Your task to perform on an android device: Open settings on Google Maps Image 0: 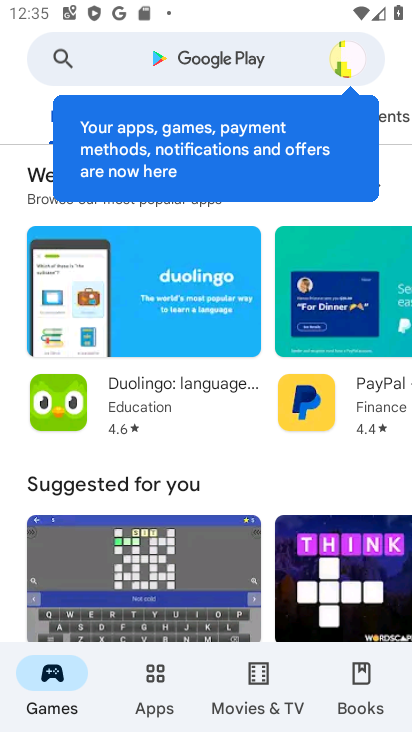
Step 0: drag from (306, 530) to (294, 151)
Your task to perform on an android device: Open settings on Google Maps Image 1: 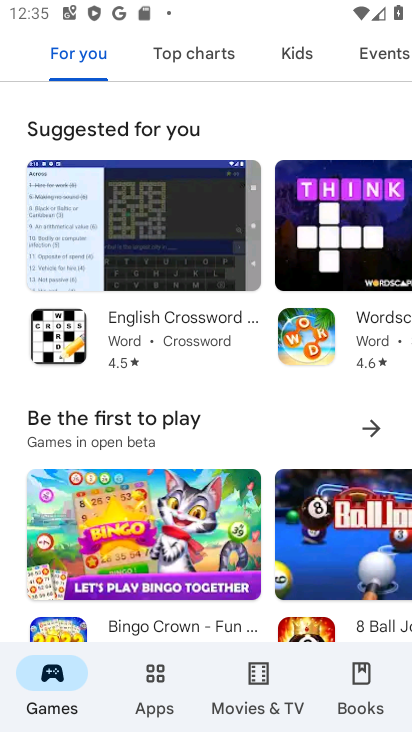
Step 1: press home button
Your task to perform on an android device: Open settings on Google Maps Image 2: 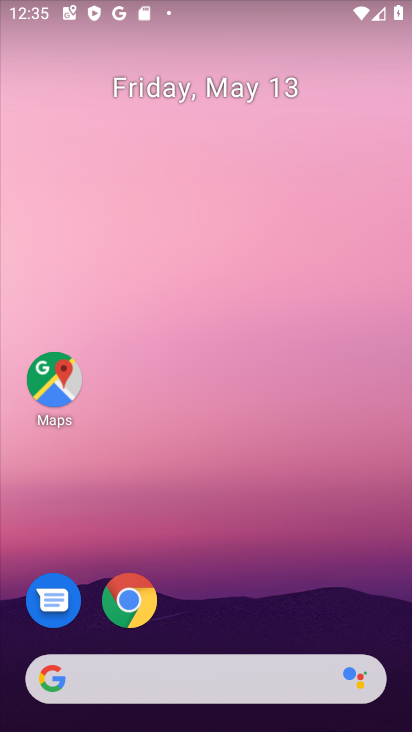
Step 2: drag from (252, 551) to (239, 8)
Your task to perform on an android device: Open settings on Google Maps Image 3: 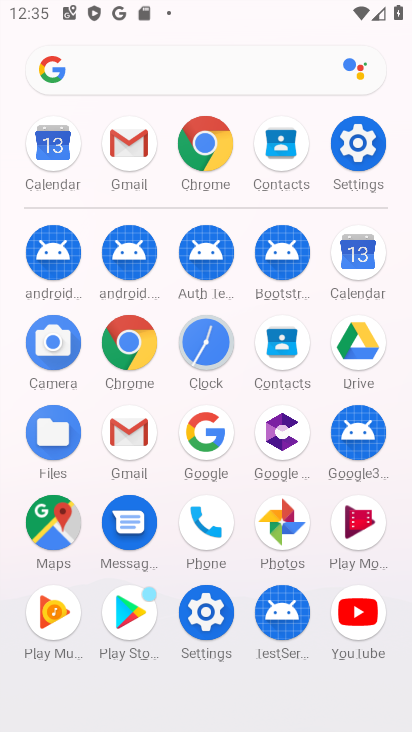
Step 3: click (39, 532)
Your task to perform on an android device: Open settings on Google Maps Image 4: 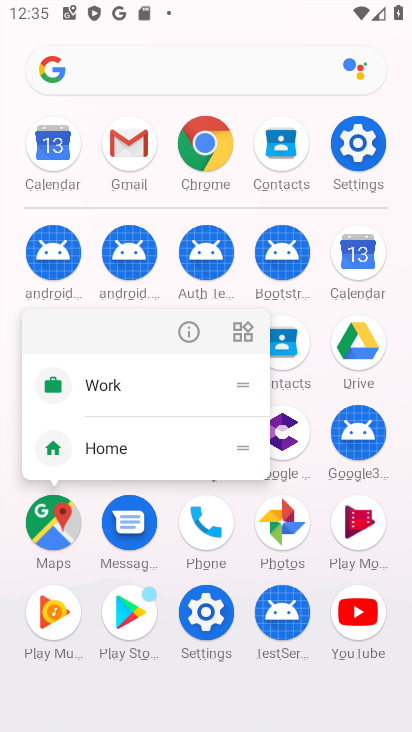
Step 4: click (195, 334)
Your task to perform on an android device: Open settings on Google Maps Image 5: 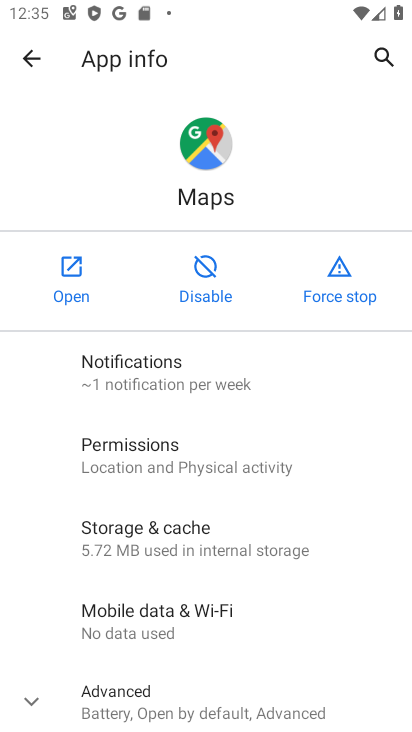
Step 5: click (48, 269)
Your task to perform on an android device: Open settings on Google Maps Image 6: 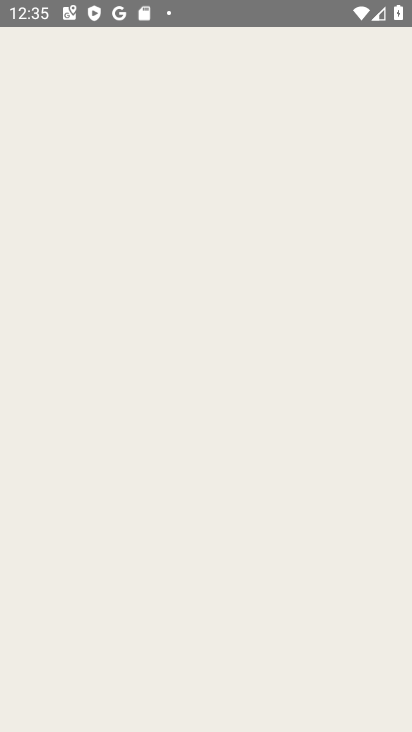
Step 6: drag from (225, 622) to (232, 346)
Your task to perform on an android device: Open settings on Google Maps Image 7: 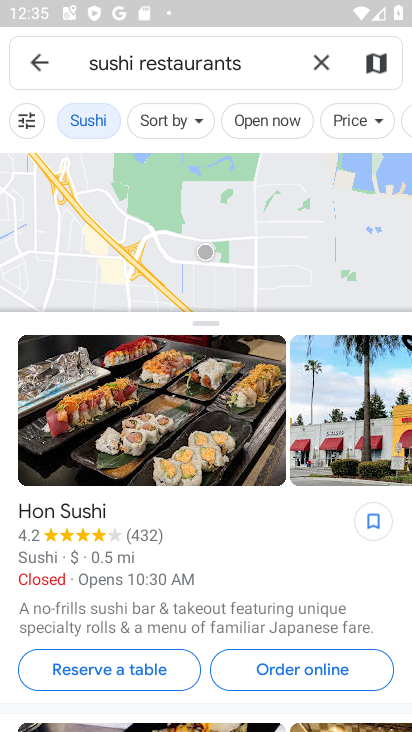
Step 7: click (39, 66)
Your task to perform on an android device: Open settings on Google Maps Image 8: 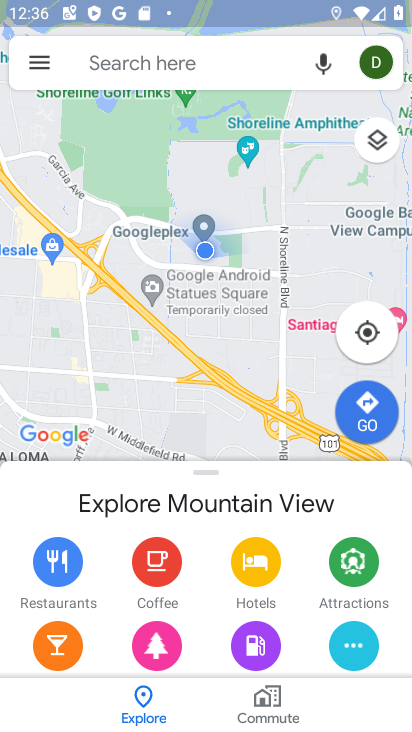
Step 8: click (18, 54)
Your task to perform on an android device: Open settings on Google Maps Image 9: 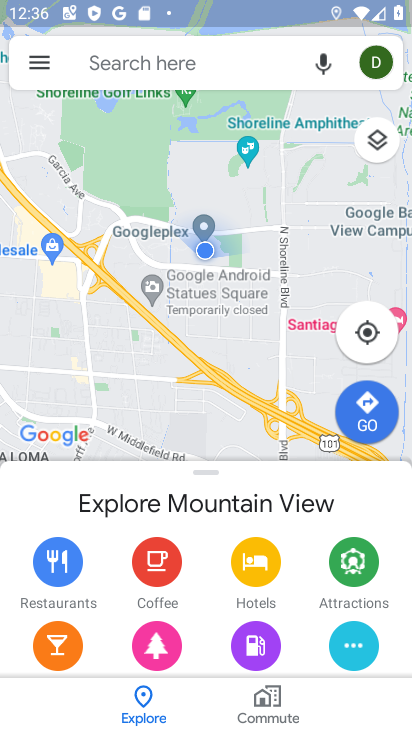
Step 9: click (28, 54)
Your task to perform on an android device: Open settings on Google Maps Image 10: 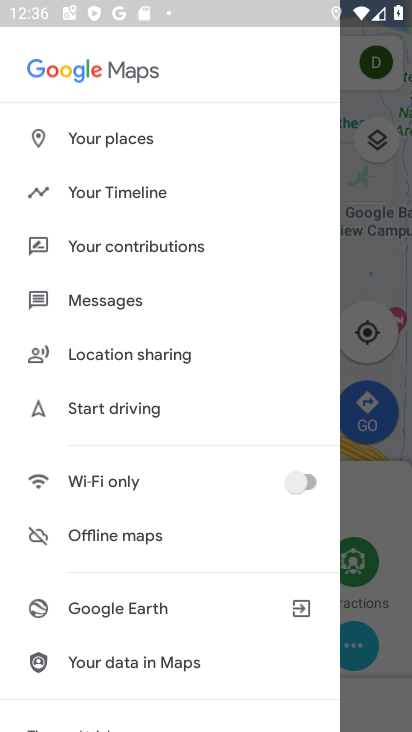
Step 10: drag from (143, 630) to (140, 290)
Your task to perform on an android device: Open settings on Google Maps Image 11: 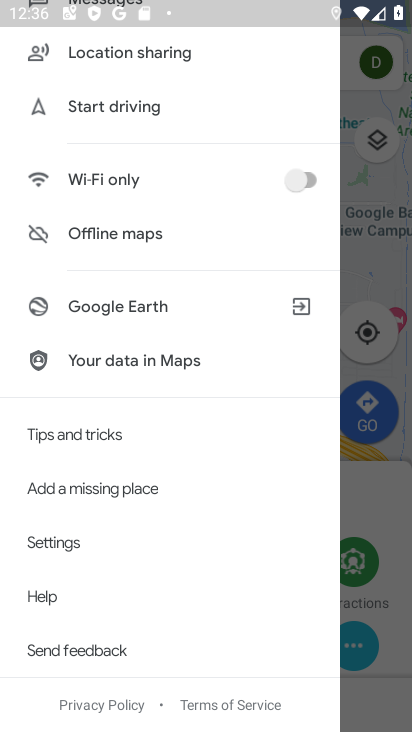
Step 11: click (77, 550)
Your task to perform on an android device: Open settings on Google Maps Image 12: 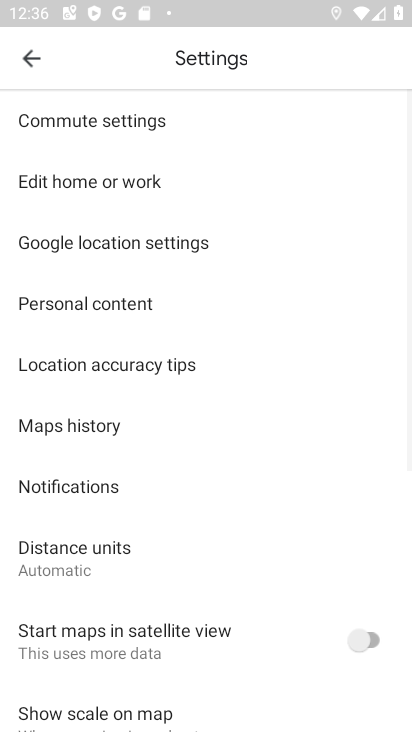
Step 12: task complete